Your task to perform on an android device: check storage Image 0: 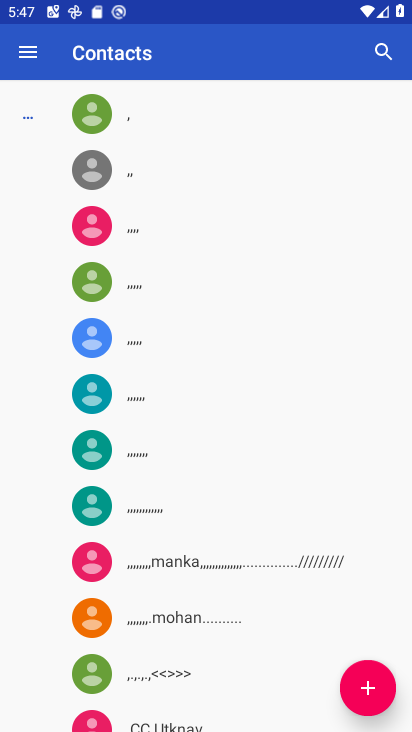
Step 0: press home button
Your task to perform on an android device: check storage Image 1: 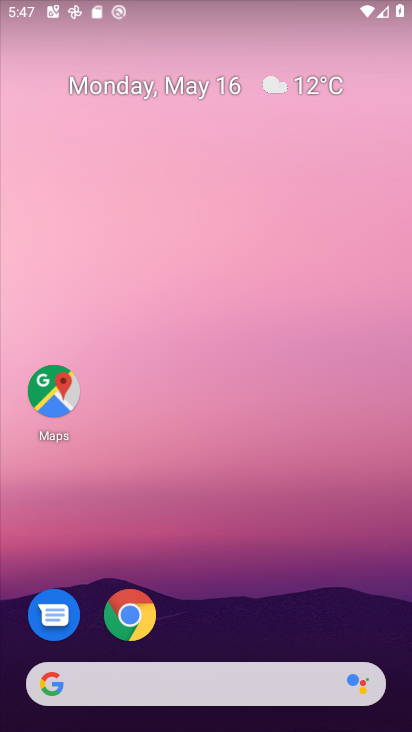
Step 1: drag from (250, 614) to (307, 157)
Your task to perform on an android device: check storage Image 2: 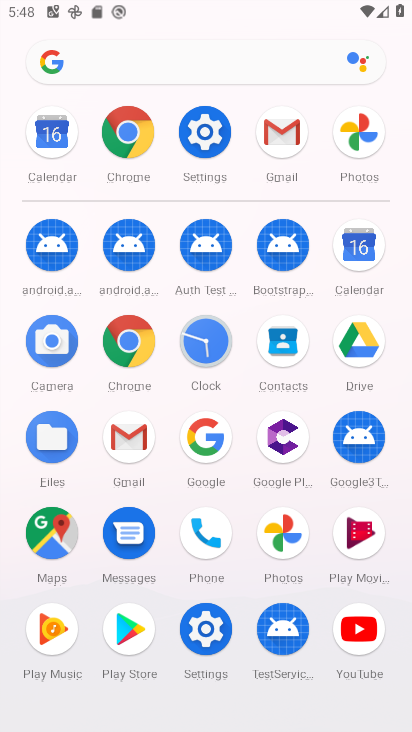
Step 2: click (202, 132)
Your task to perform on an android device: check storage Image 3: 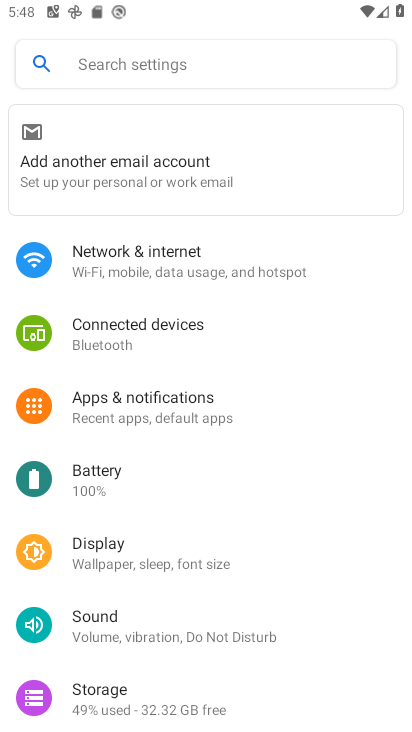
Step 3: click (111, 701)
Your task to perform on an android device: check storage Image 4: 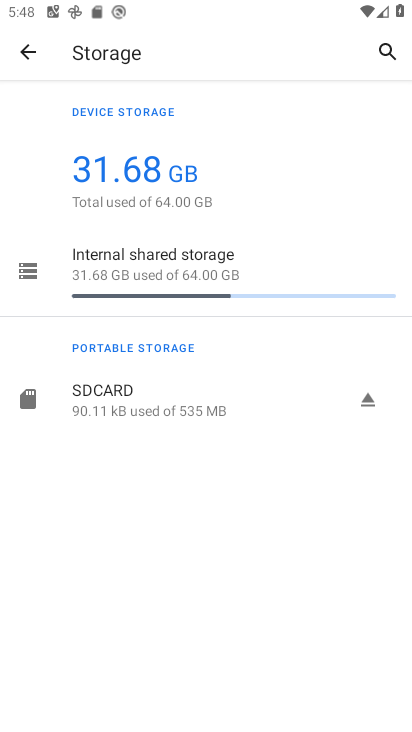
Step 4: task complete